Your task to perform on an android device: Go to calendar. Show me events next week Image 0: 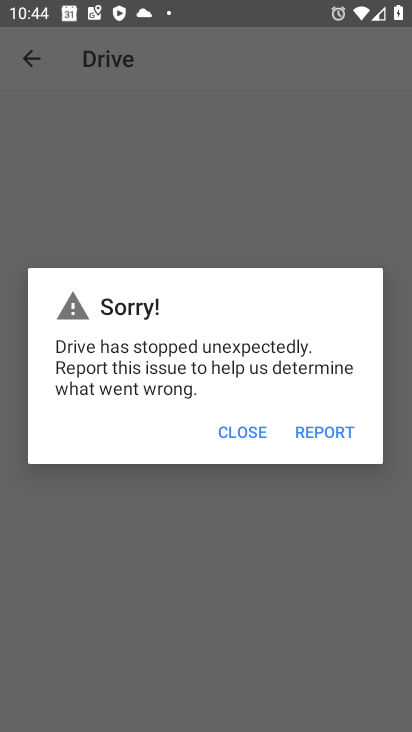
Step 0: press home button
Your task to perform on an android device: Go to calendar. Show me events next week Image 1: 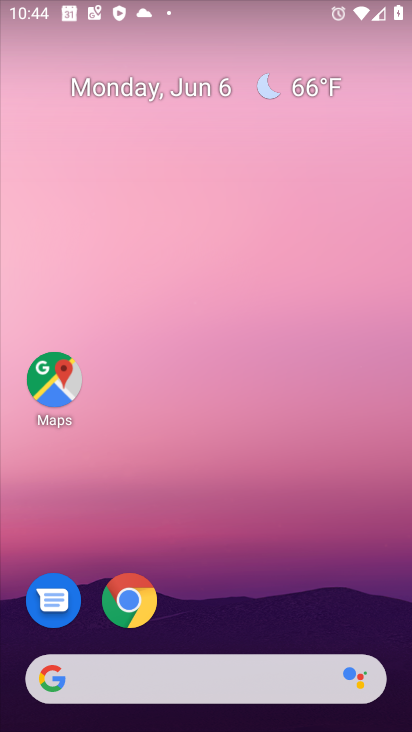
Step 1: drag from (35, 491) to (251, 115)
Your task to perform on an android device: Go to calendar. Show me events next week Image 2: 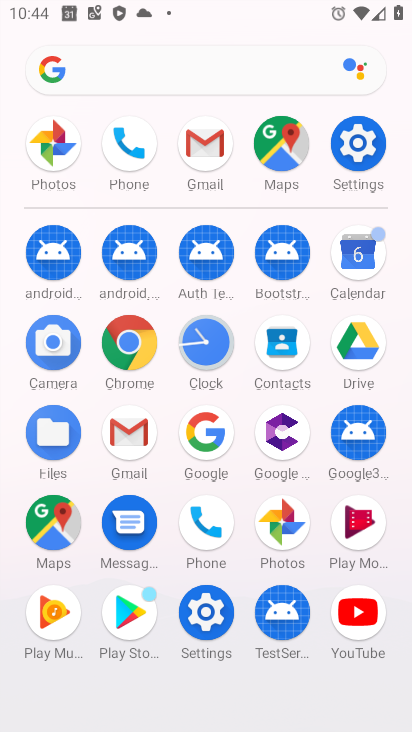
Step 2: click (359, 271)
Your task to perform on an android device: Go to calendar. Show me events next week Image 3: 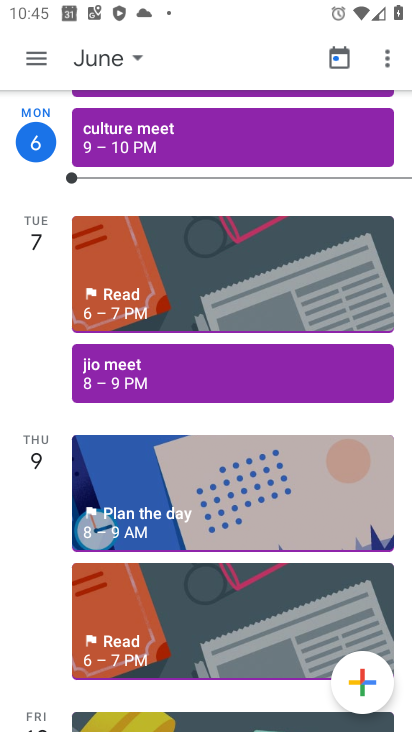
Step 3: click (131, 51)
Your task to perform on an android device: Go to calendar. Show me events next week Image 4: 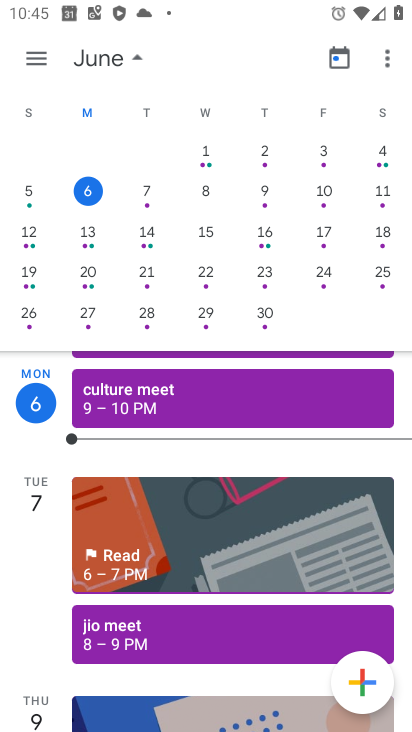
Step 4: click (86, 240)
Your task to perform on an android device: Go to calendar. Show me events next week Image 5: 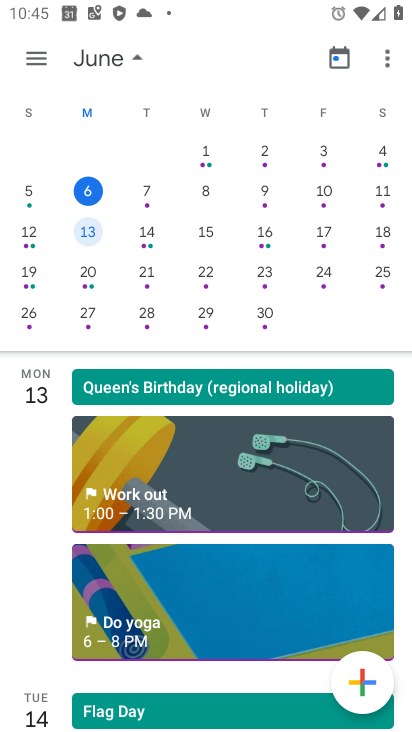
Step 5: click (150, 232)
Your task to perform on an android device: Go to calendar. Show me events next week Image 6: 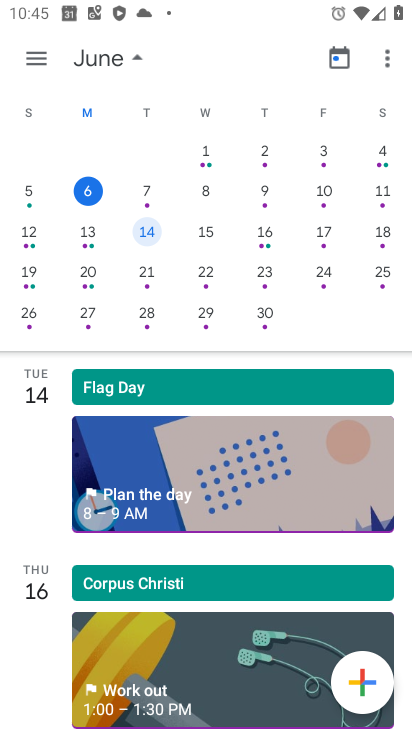
Step 6: click (198, 232)
Your task to perform on an android device: Go to calendar. Show me events next week Image 7: 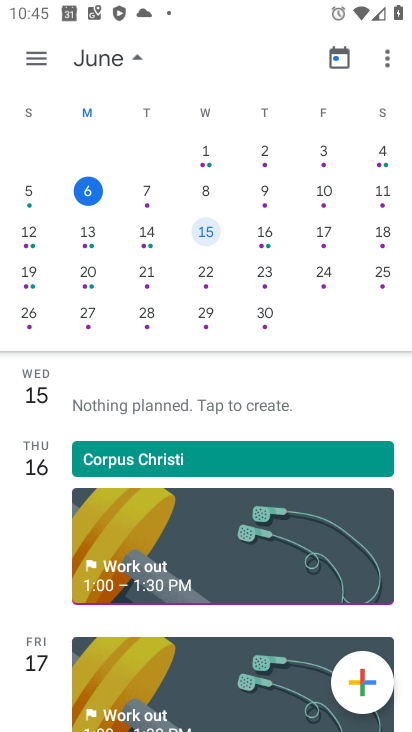
Step 7: click (262, 233)
Your task to perform on an android device: Go to calendar. Show me events next week Image 8: 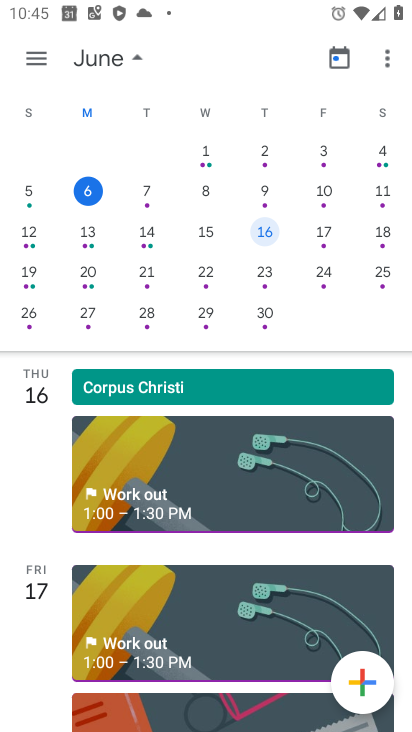
Step 8: click (326, 228)
Your task to perform on an android device: Go to calendar. Show me events next week Image 9: 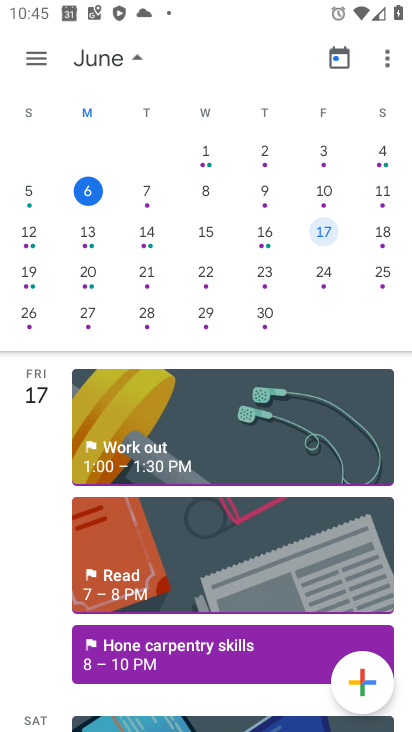
Step 9: task complete